Your task to perform on an android device: Is it going to rain this weekend? Image 0: 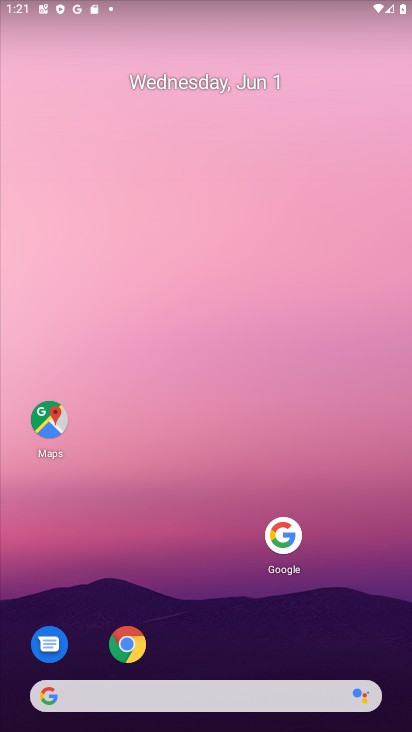
Step 0: press home button
Your task to perform on an android device: Is it going to rain this weekend? Image 1: 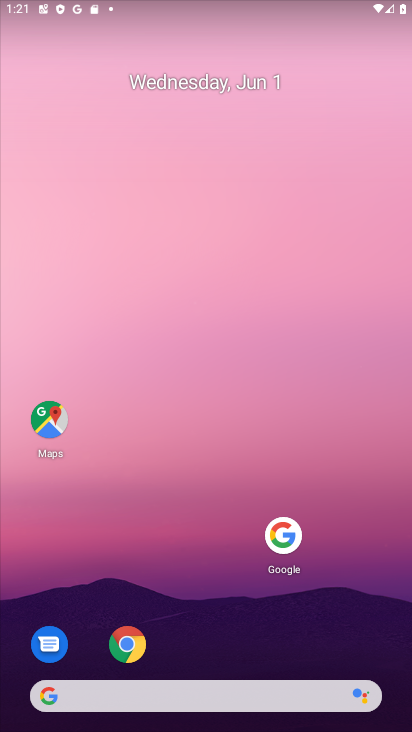
Step 1: click (53, 702)
Your task to perform on an android device: Is it going to rain this weekend? Image 2: 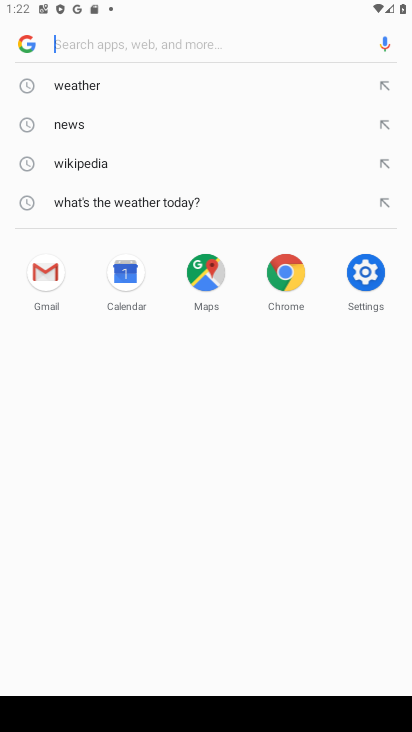
Step 2: click (82, 82)
Your task to perform on an android device: Is it going to rain this weekend? Image 3: 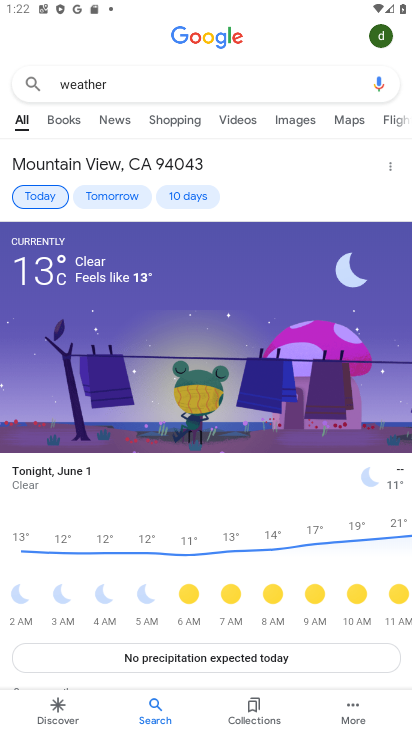
Step 3: click (194, 199)
Your task to perform on an android device: Is it going to rain this weekend? Image 4: 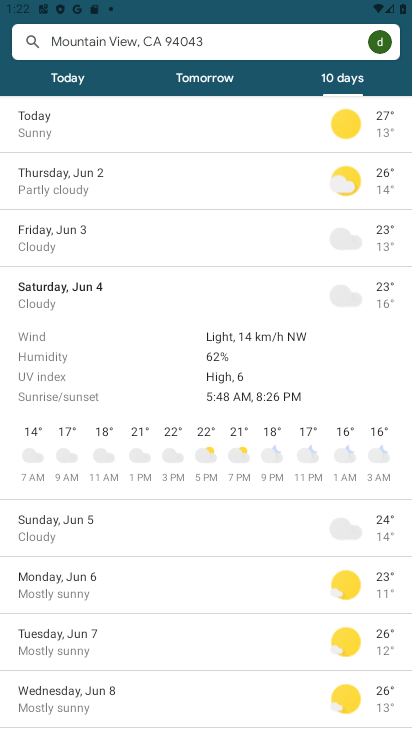
Step 4: task complete